Your task to perform on an android device: Set the phone to "Do not disturb". Image 0: 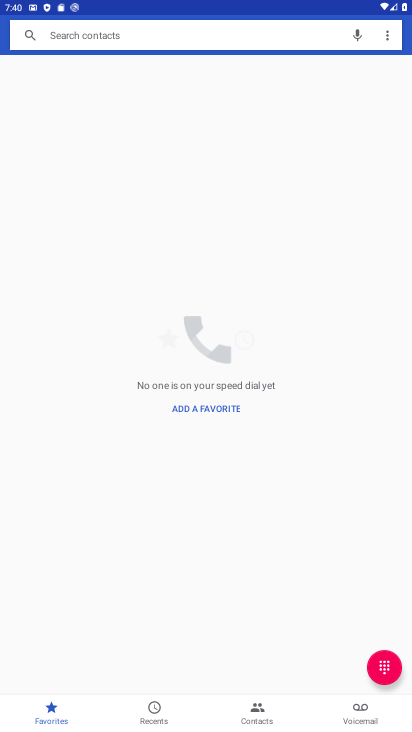
Step 0: press home button
Your task to perform on an android device: Set the phone to "Do not disturb". Image 1: 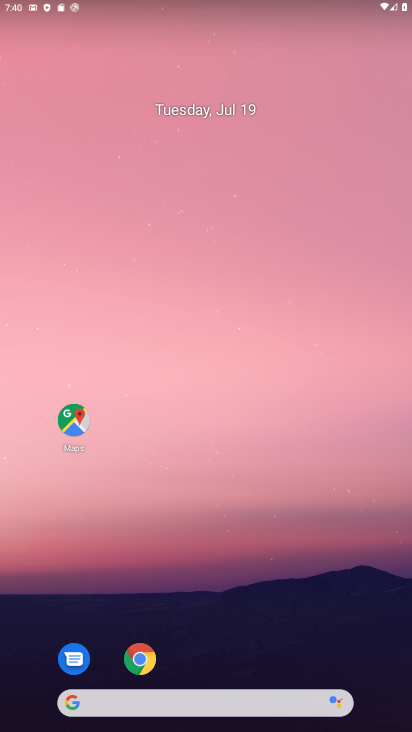
Step 1: drag from (139, 10) to (145, 428)
Your task to perform on an android device: Set the phone to "Do not disturb". Image 2: 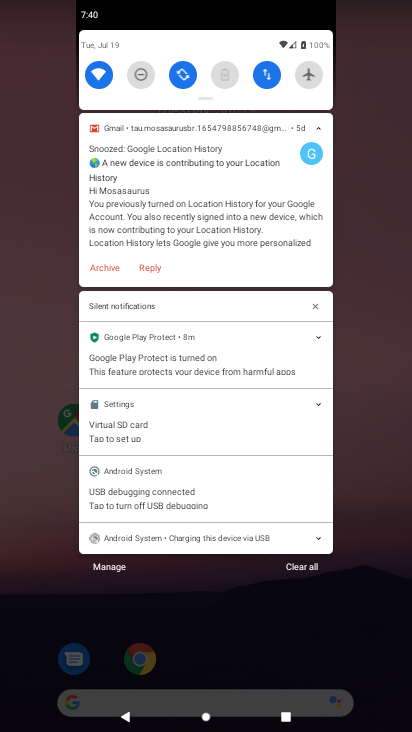
Step 2: click (146, 70)
Your task to perform on an android device: Set the phone to "Do not disturb". Image 3: 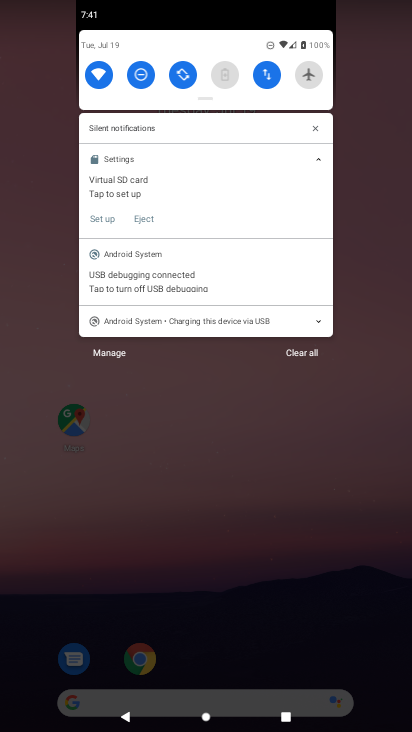
Step 3: task complete